Your task to perform on an android device: open app "YouTube Kids" Image 0: 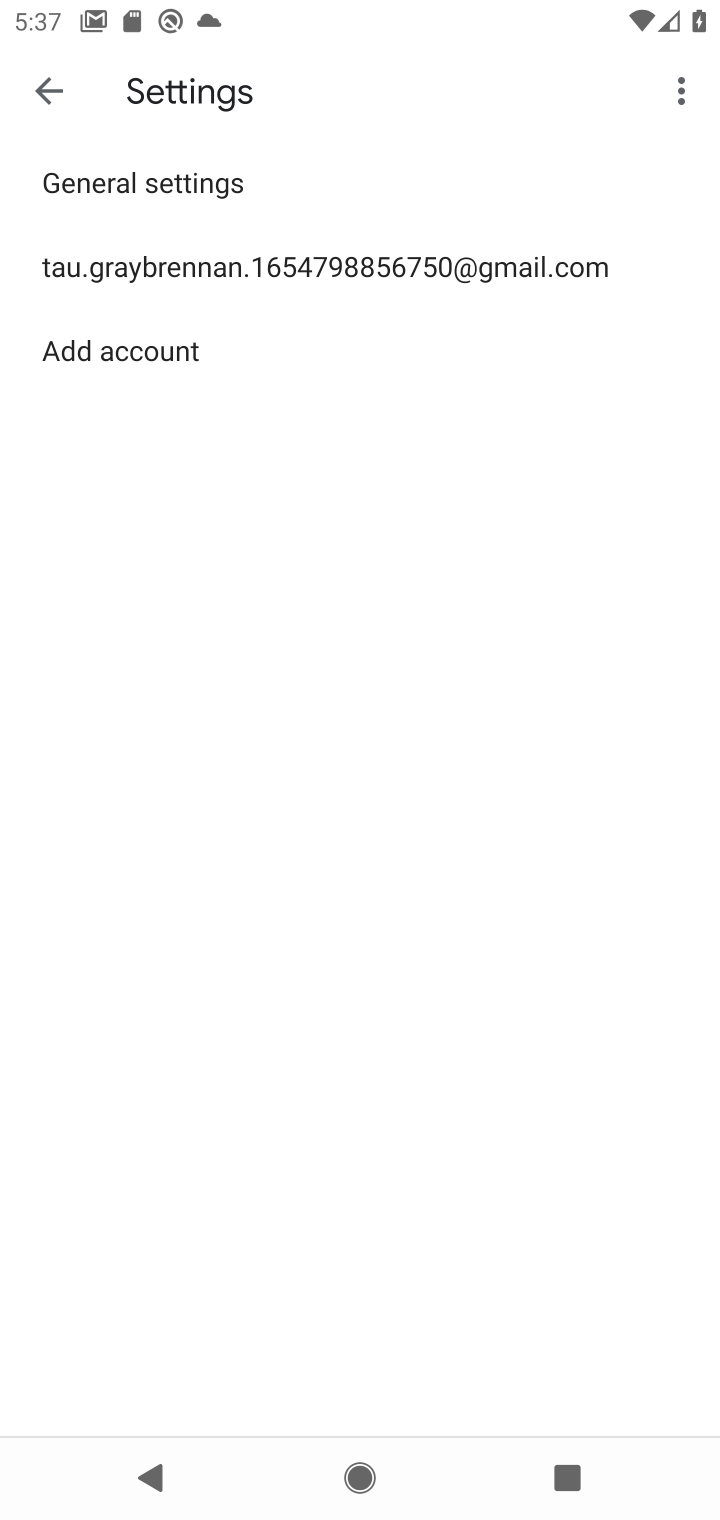
Step 0: drag from (304, 1289) to (346, 471)
Your task to perform on an android device: open app "YouTube Kids" Image 1: 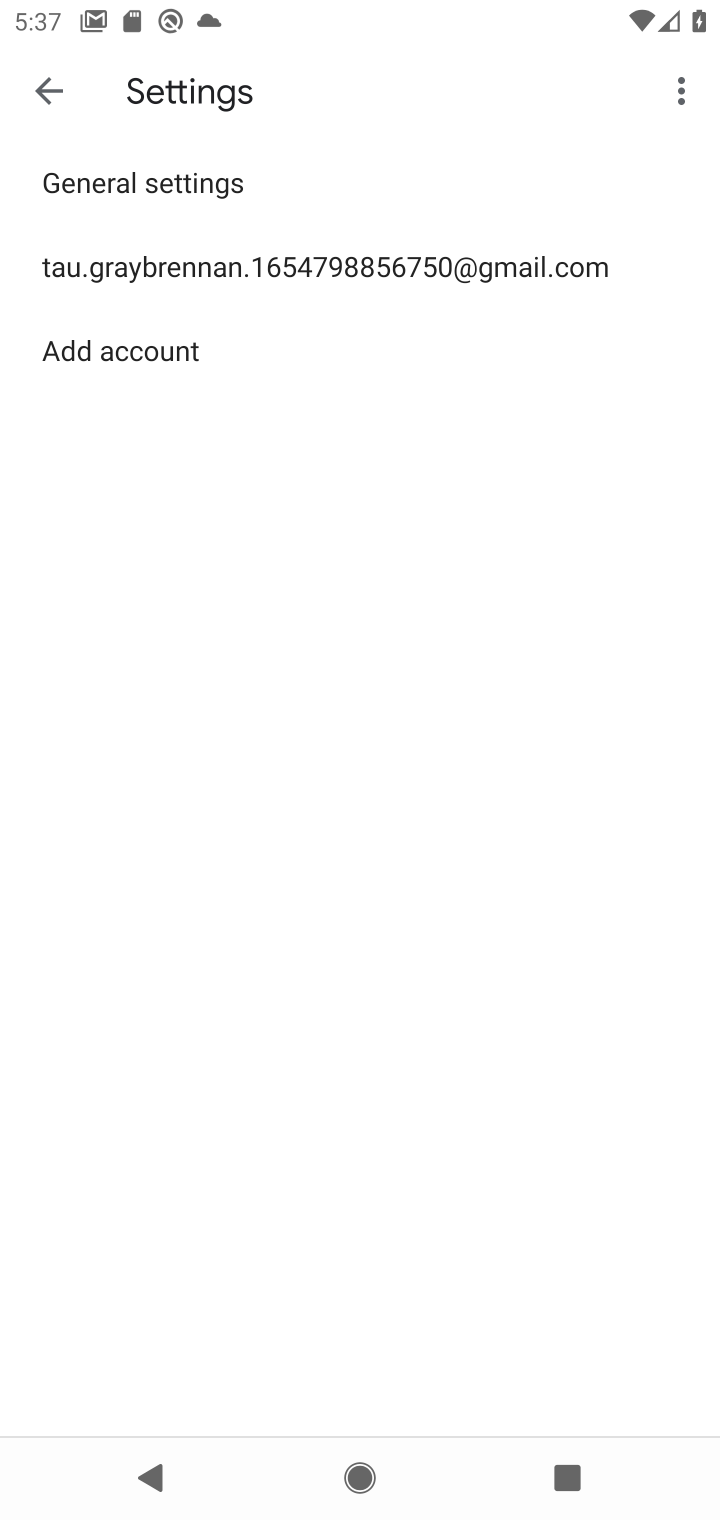
Step 1: press home button
Your task to perform on an android device: open app "YouTube Kids" Image 2: 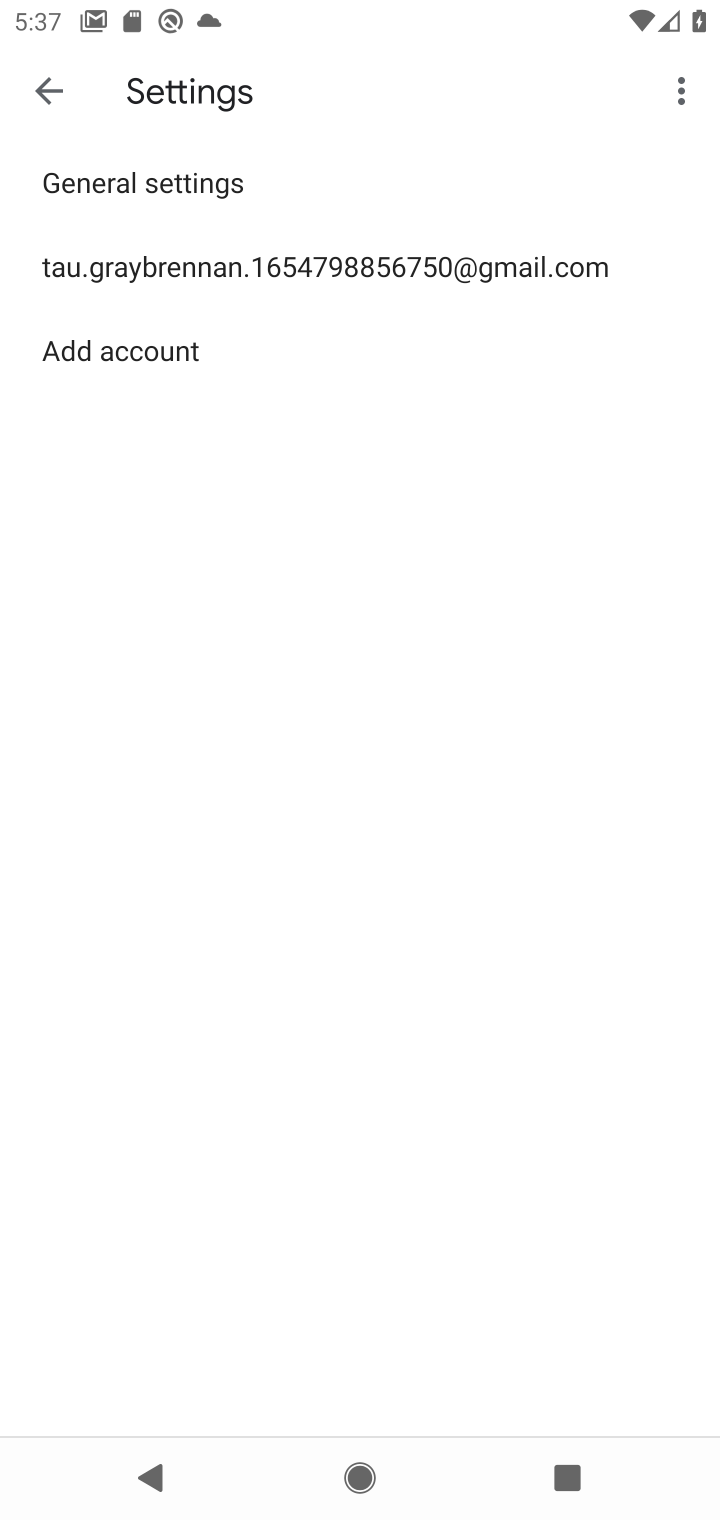
Step 2: drag from (309, 1440) to (473, 330)
Your task to perform on an android device: open app "YouTube Kids" Image 3: 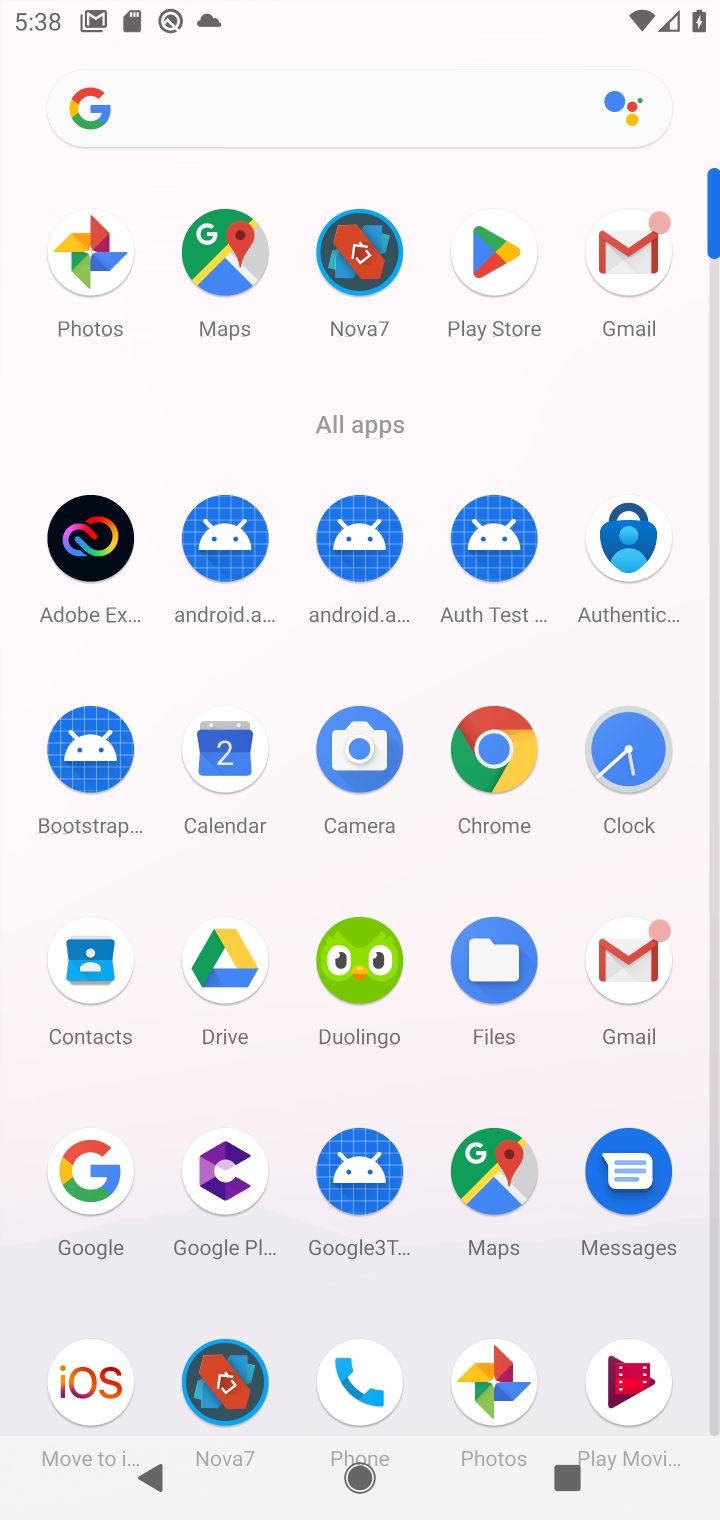
Step 3: drag from (333, 1187) to (491, 2)
Your task to perform on an android device: open app "YouTube Kids" Image 4: 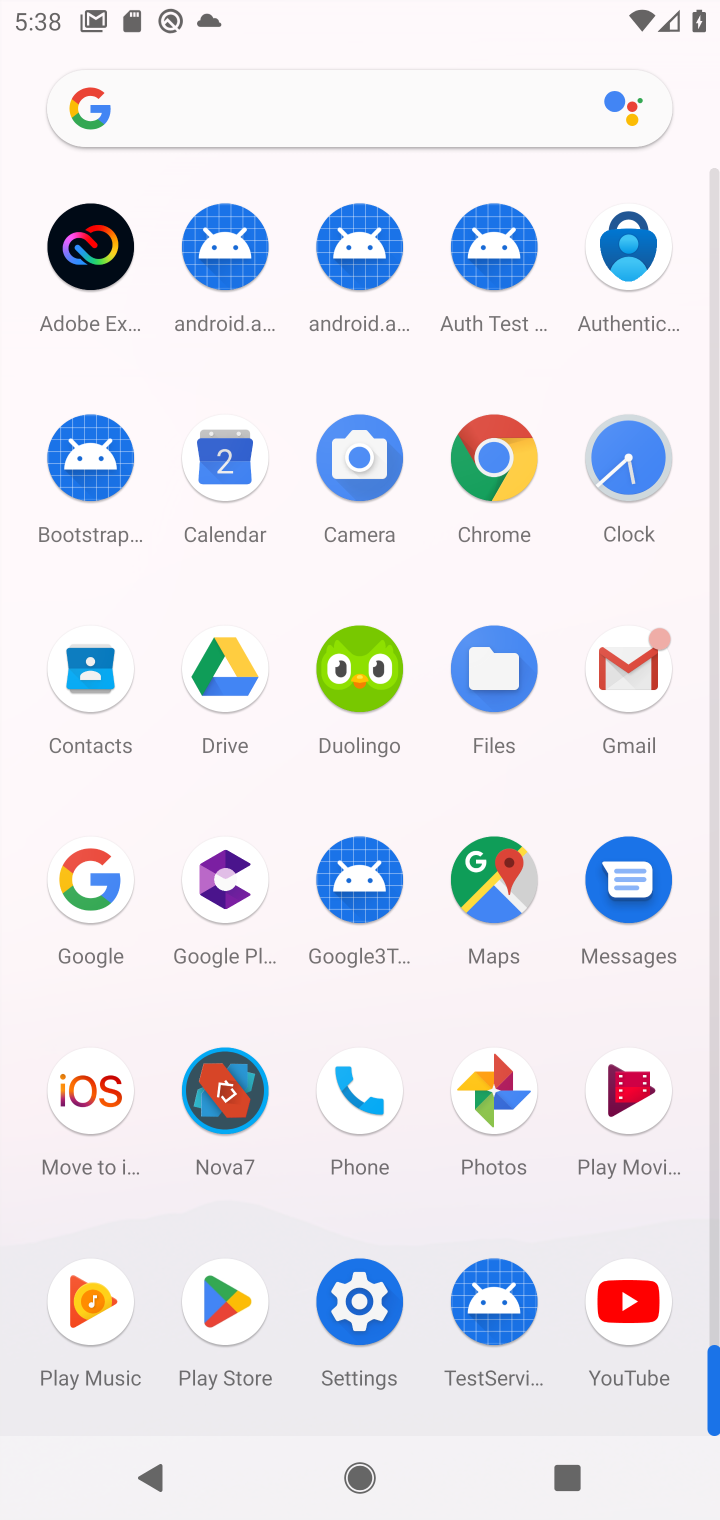
Step 4: click (489, 227)
Your task to perform on an android device: open app "YouTube Kids" Image 5: 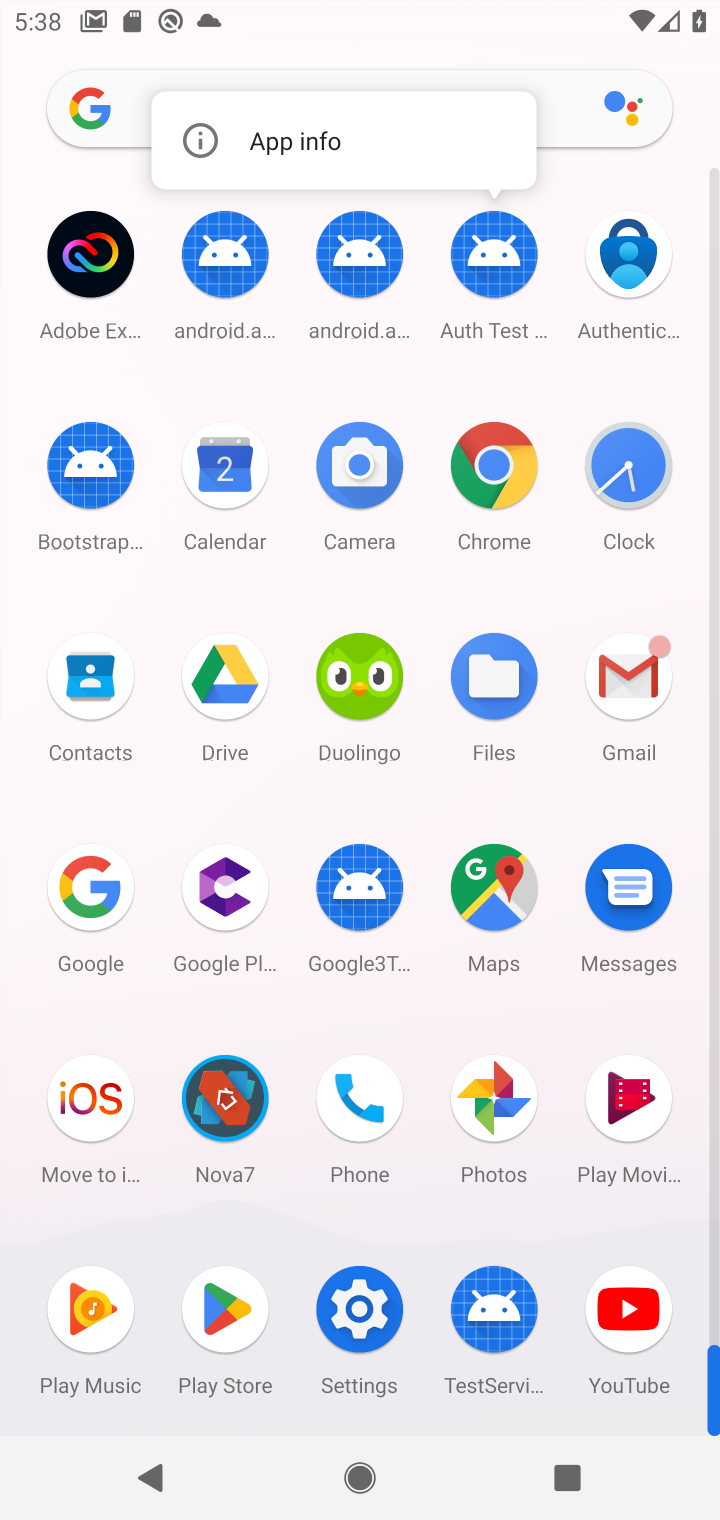
Step 5: click (207, 1319)
Your task to perform on an android device: open app "YouTube Kids" Image 6: 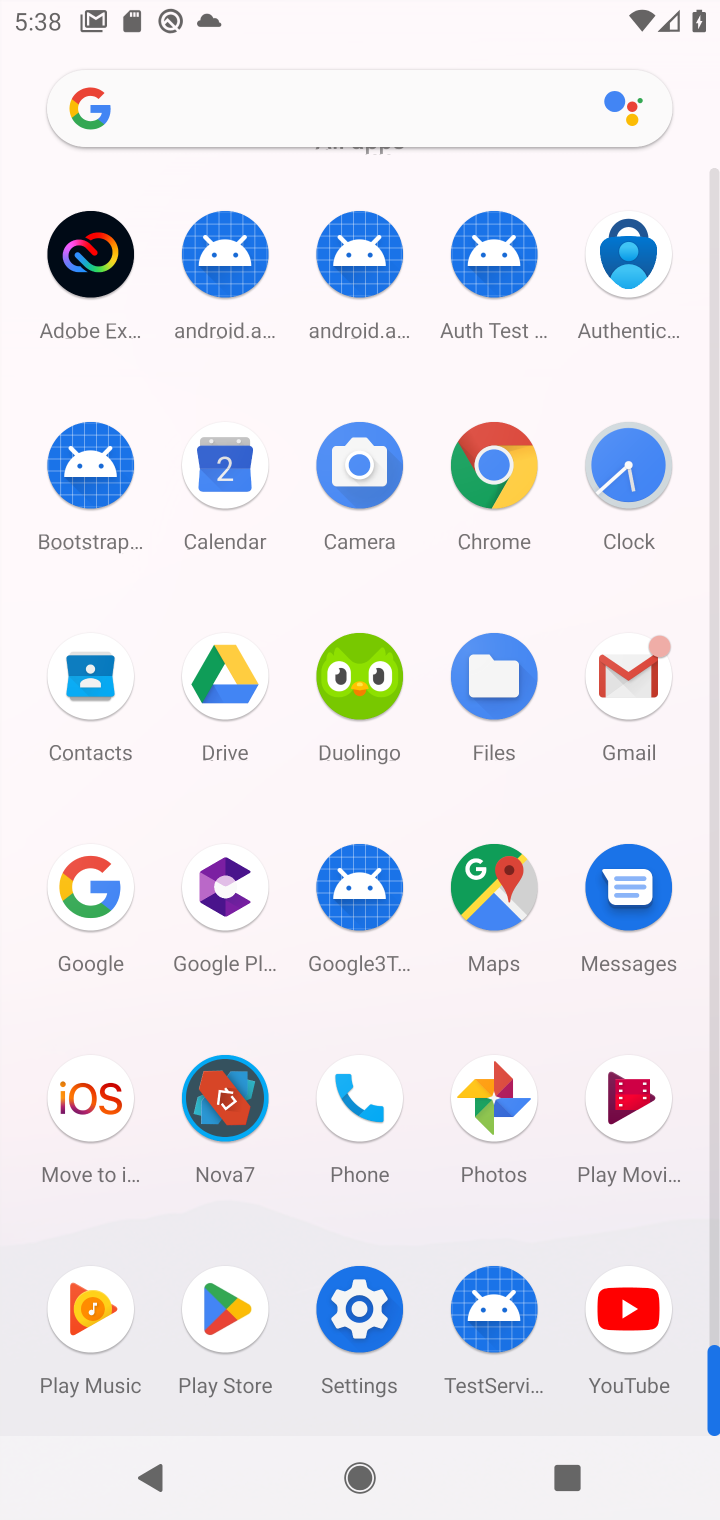
Step 6: click (224, 1292)
Your task to perform on an android device: open app "YouTube Kids" Image 7: 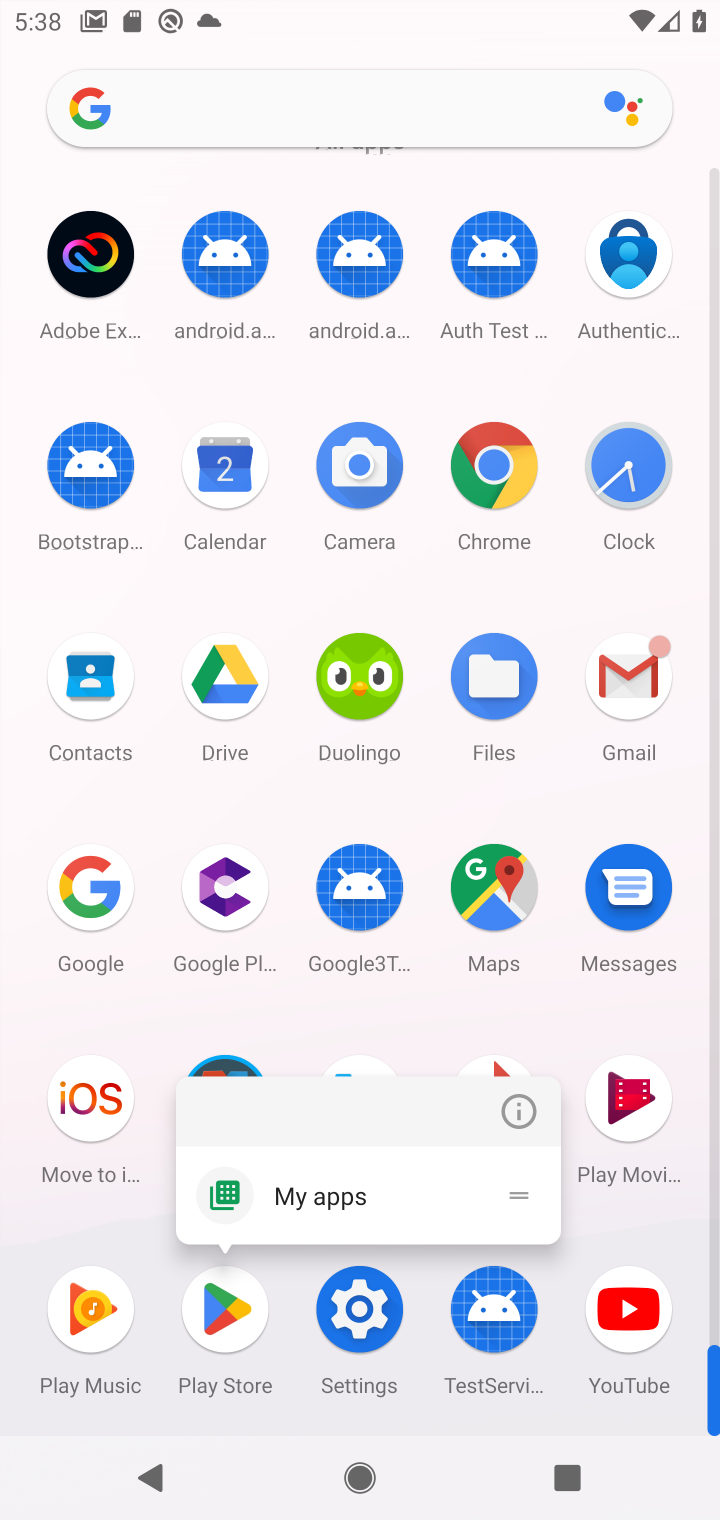
Step 7: click (522, 1117)
Your task to perform on an android device: open app "YouTube Kids" Image 8: 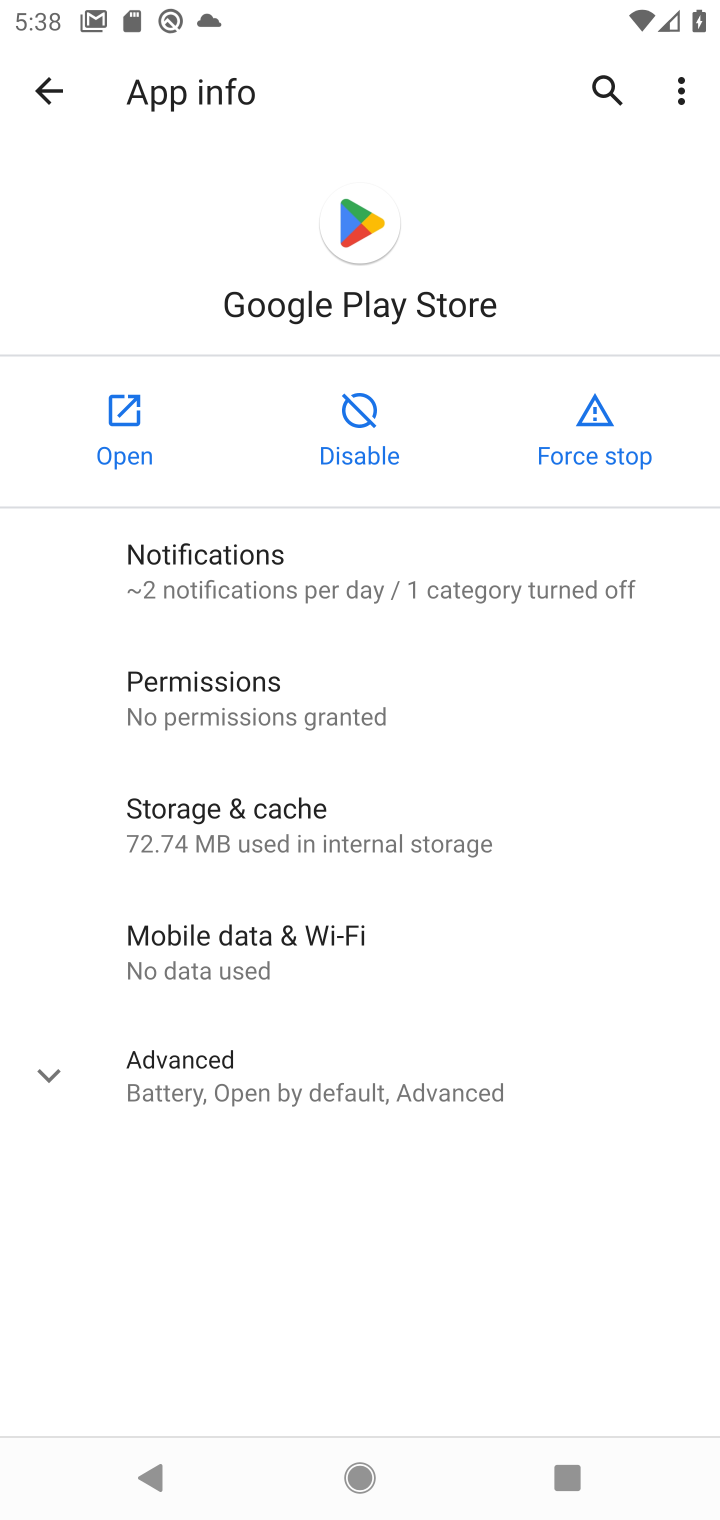
Step 8: click (146, 397)
Your task to perform on an android device: open app "YouTube Kids" Image 9: 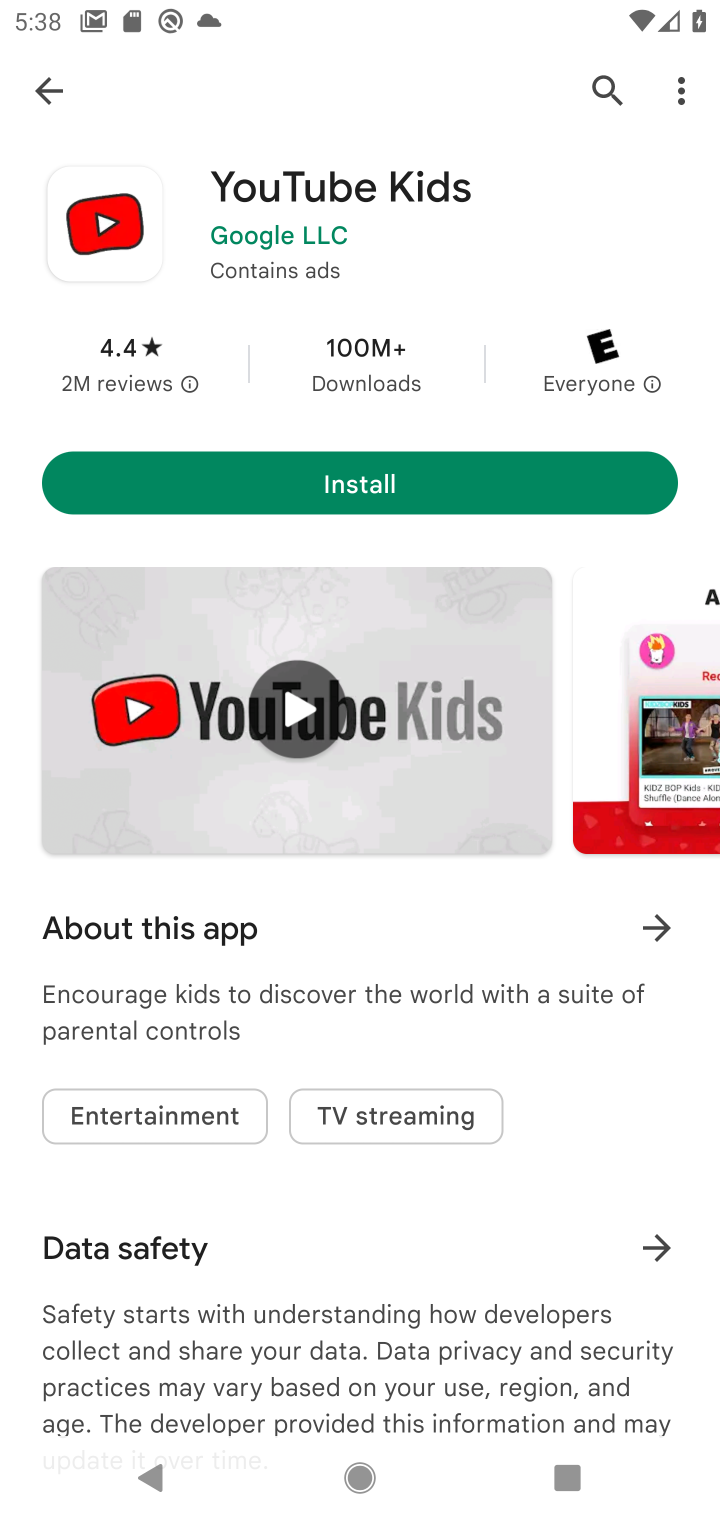
Step 9: task complete